Your task to perform on an android device: Check the settings for the Lyft app Image 0: 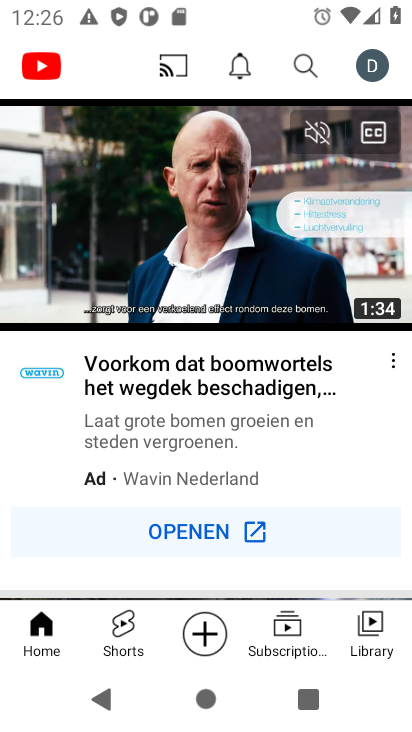
Step 0: press home button
Your task to perform on an android device: Check the settings for the Lyft app Image 1: 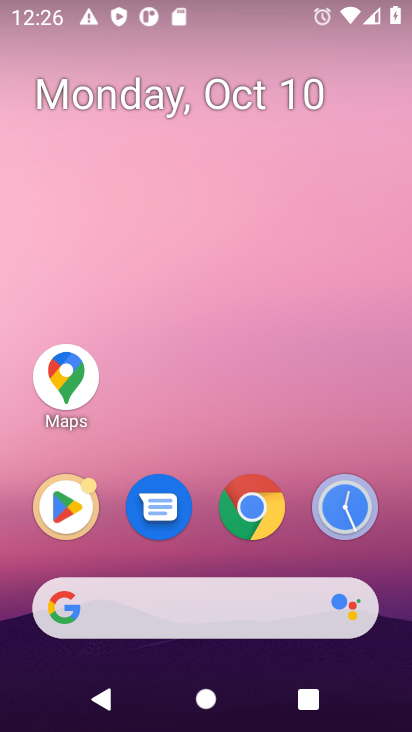
Step 1: drag from (374, 568) to (365, 93)
Your task to perform on an android device: Check the settings for the Lyft app Image 2: 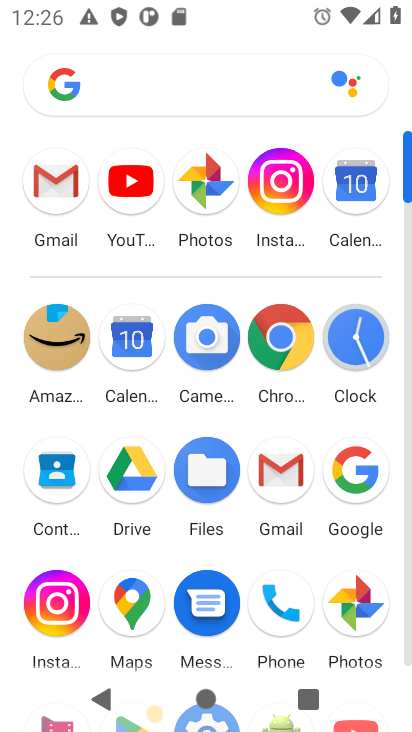
Step 2: drag from (376, 571) to (374, 293)
Your task to perform on an android device: Check the settings for the Lyft app Image 3: 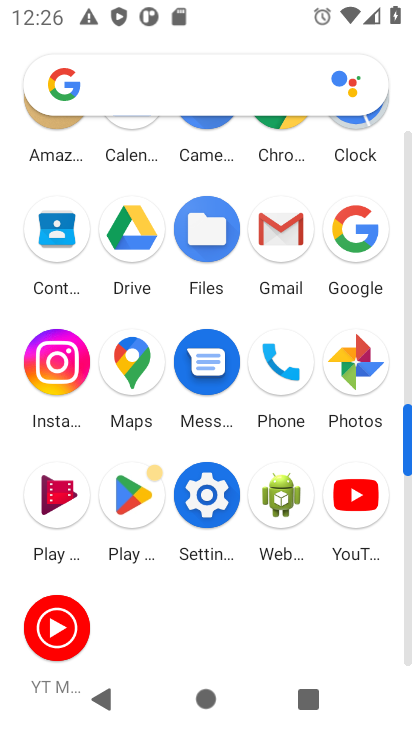
Step 3: click (126, 509)
Your task to perform on an android device: Check the settings for the Lyft app Image 4: 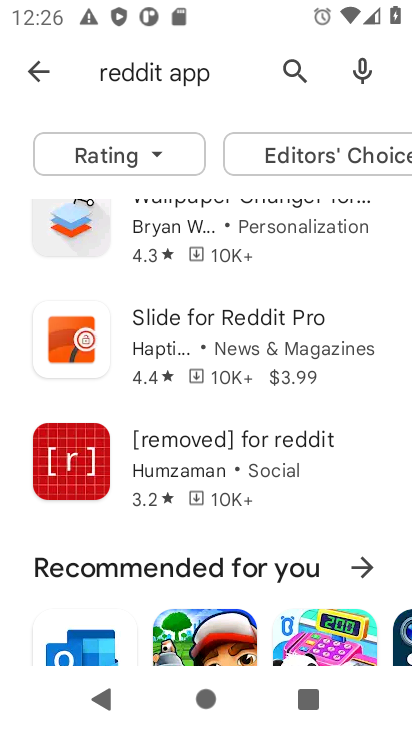
Step 4: click (292, 68)
Your task to perform on an android device: Check the settings for the Lyft app Image 5: 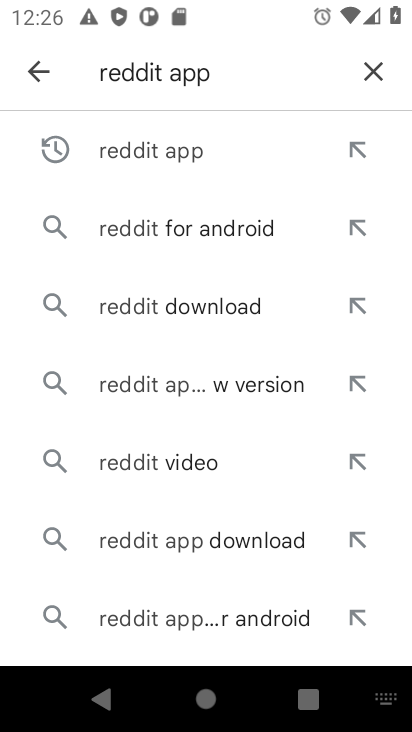
Step 5: click (377, 77)
Your task to perform on an android device: Check the settings for the Lyft app Image 6: 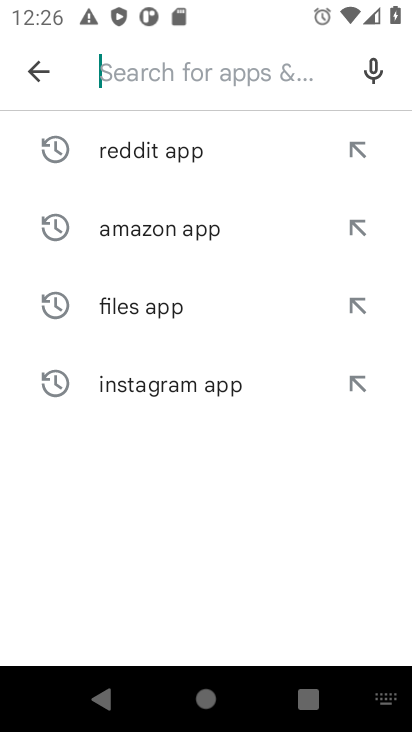
Step 6: type "Lyft app"
Your task to perform on an android device: Check the settings for the Lyft app Image 7: 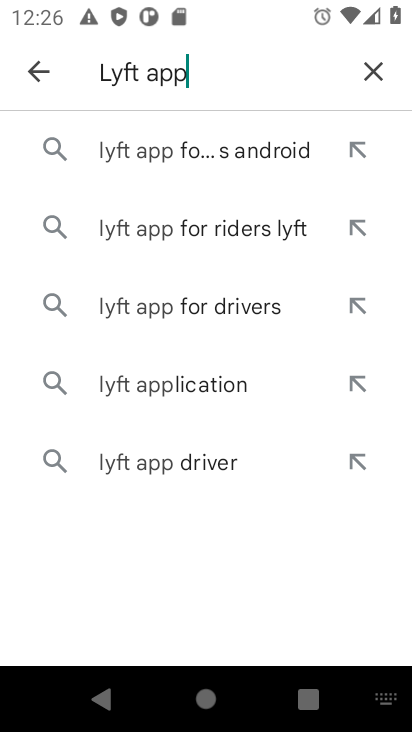
Step 7: press enter
Your task to perform on an android device: Check the settings for the Lyft app Image 8: 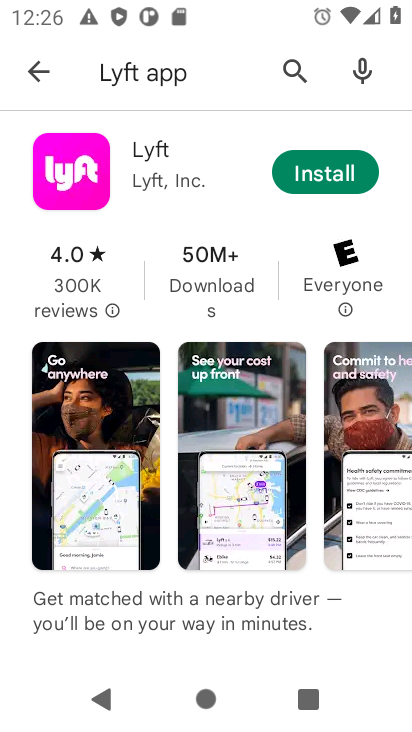
Step 8: task complete